Your task to perform on an android device: install app "Flipkart Online Shopping App" Image 0: 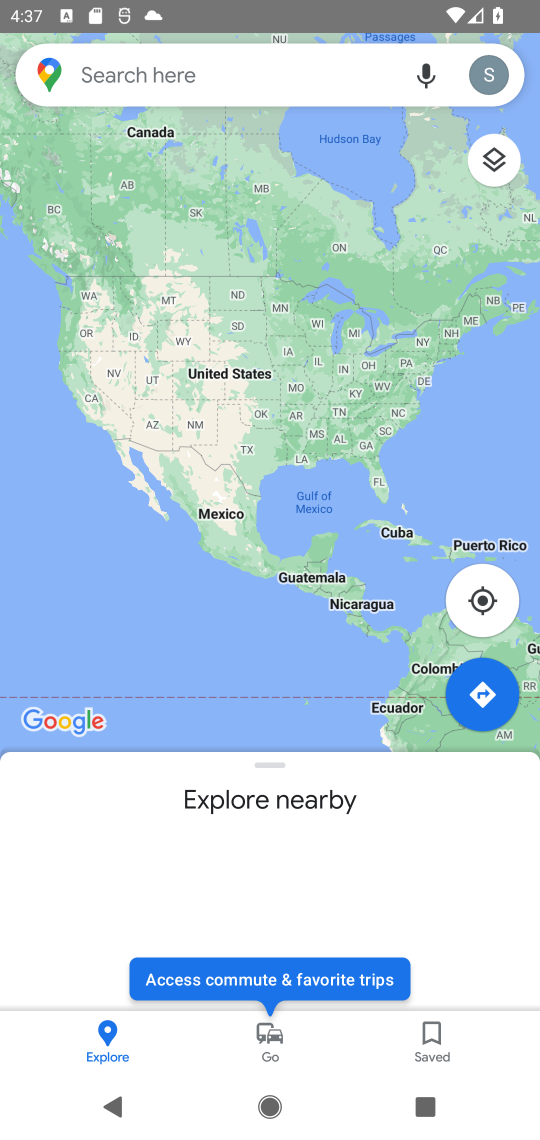
Step 0: press home button
Your task to perform on an android device: install app "Flipkart Online Shopping App" Image 1: 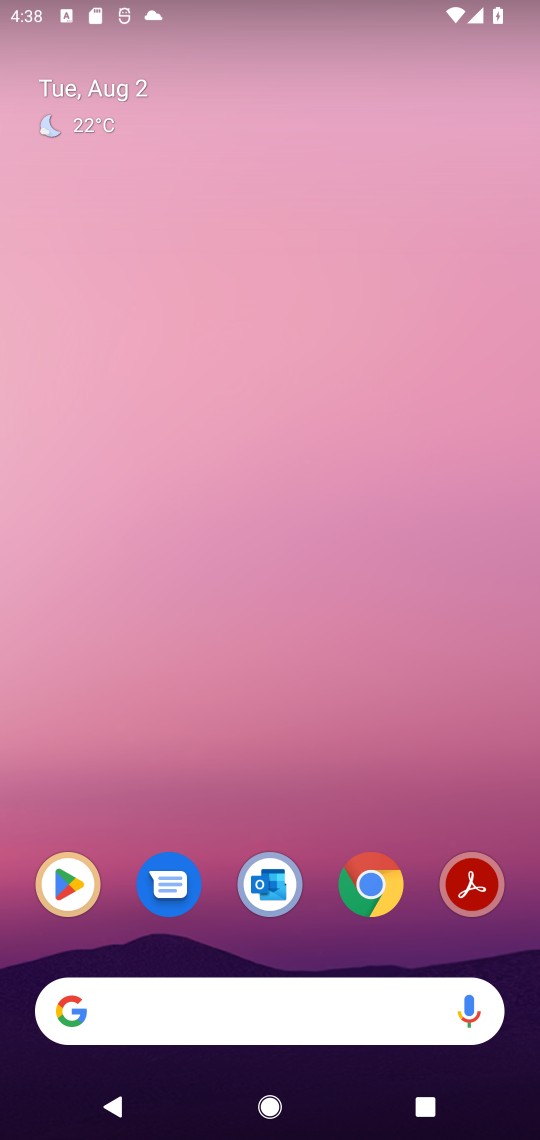
Step 1: click (61, 874)
Your task to perform on an android device: install app "Flipkart Online Shopping App" Image 2: 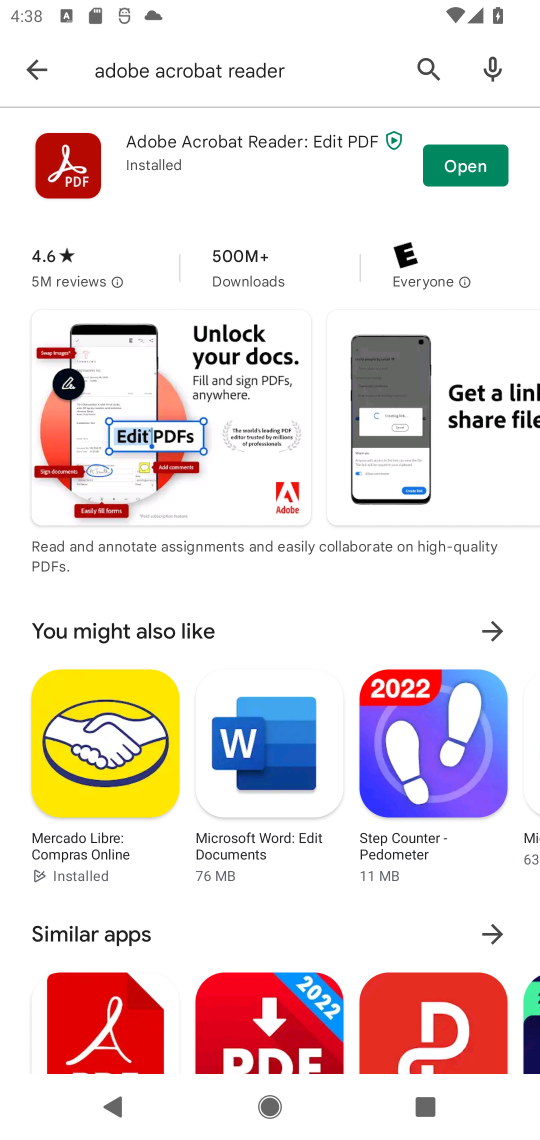
Step 2: click (55, 71)
Your task to perform on an android device: install app "Flipkart Online Shopping App" Image 3: 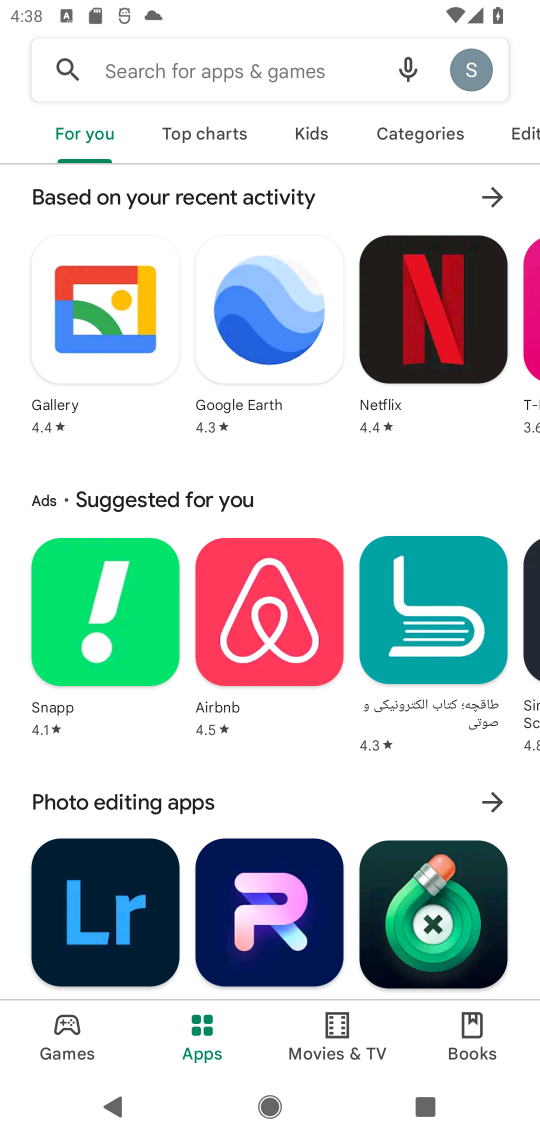
Step 3: click (220, 69)
Your task to perform on an android device: install app "Flipkart Online Shopping App" Image 4: 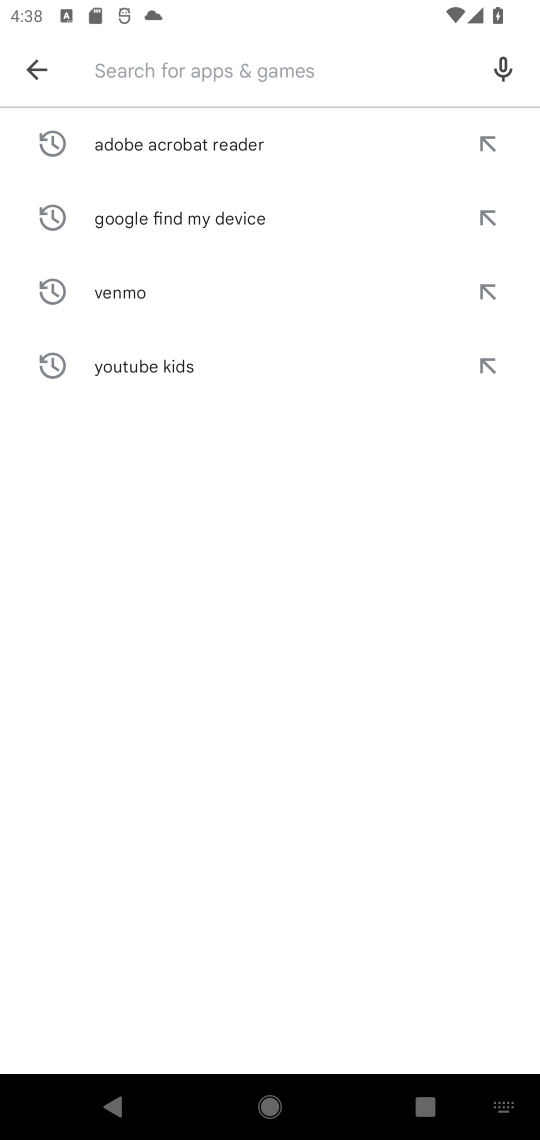
Step 4: type "Flipkart Online Shopping App"
Your task to perform on an android device: install app "Flipkart Online Shopping App" Image 5: 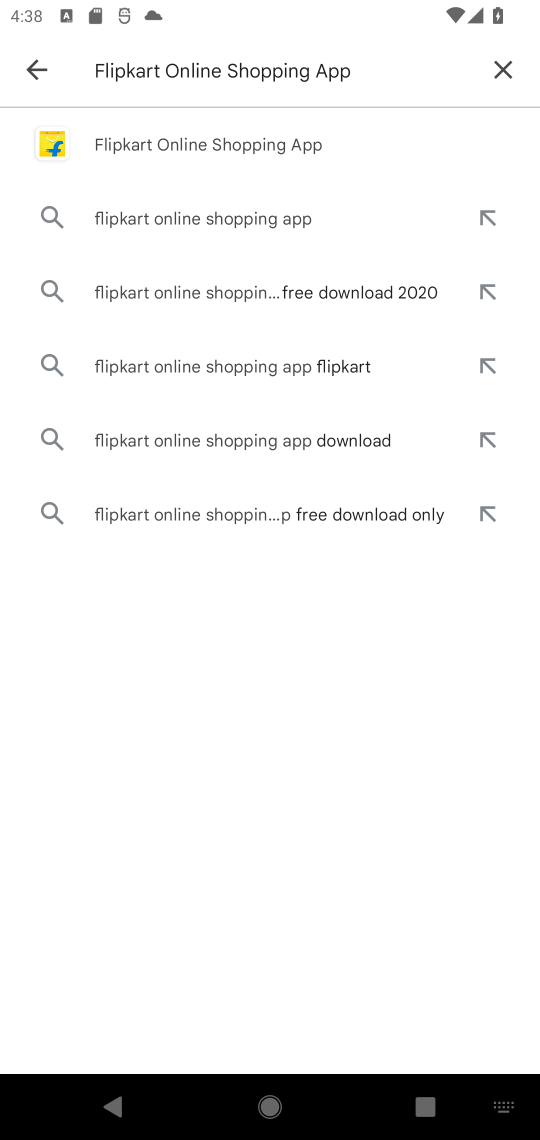
Step 5: click (266, 134)
Your task to perform on an android device: install app "Flipkart Online Shopping App" Image 6: 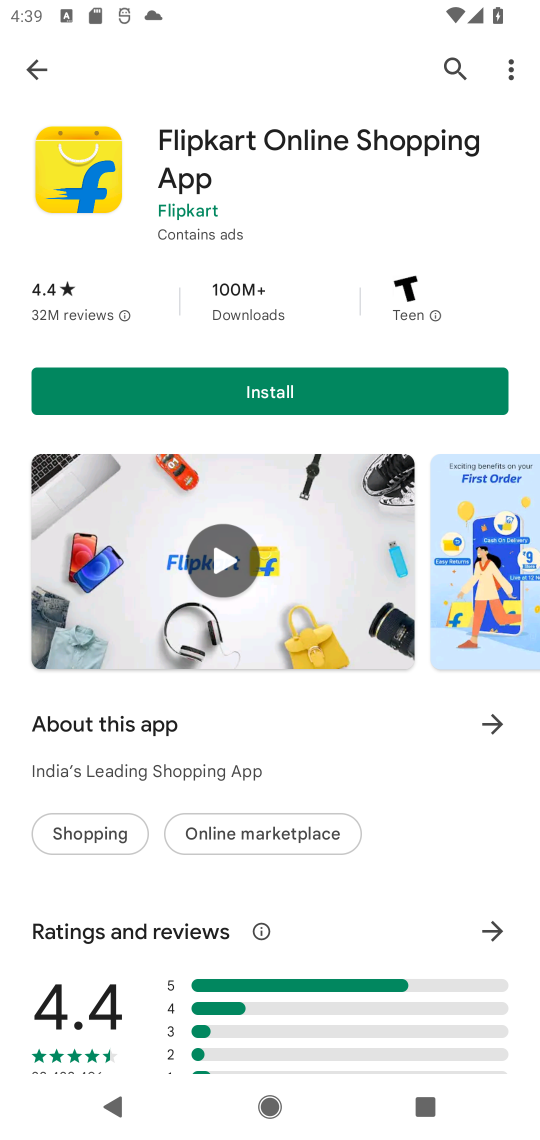
Step 6: click (274, 417)
Your task to perform on an android device: install app "Flipkart Online Shopping App" Image 7: 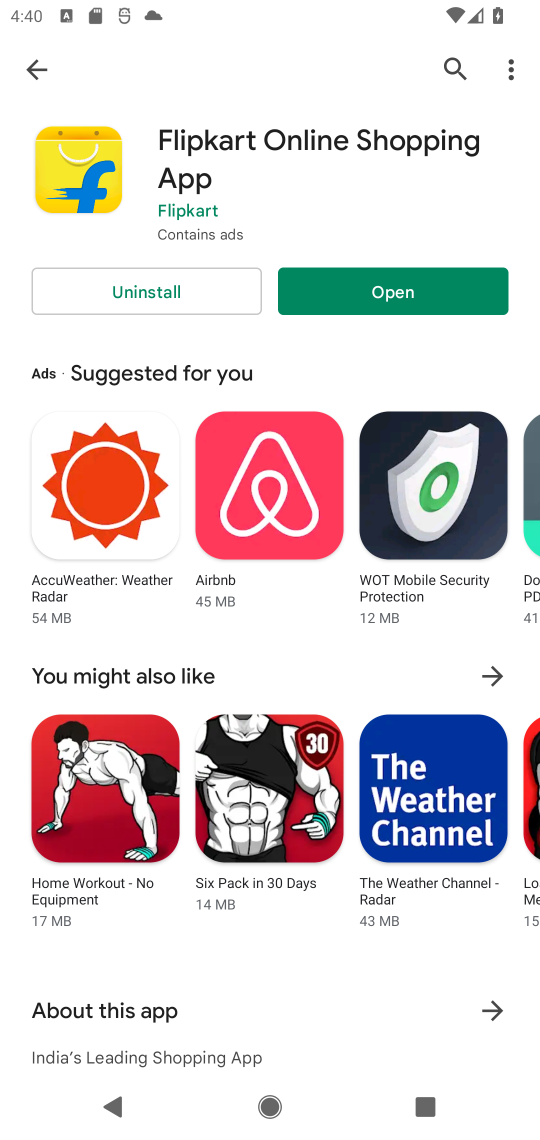
Step 7: task complete